Your task to perform on an android device: toggle sleep mode Image 0: 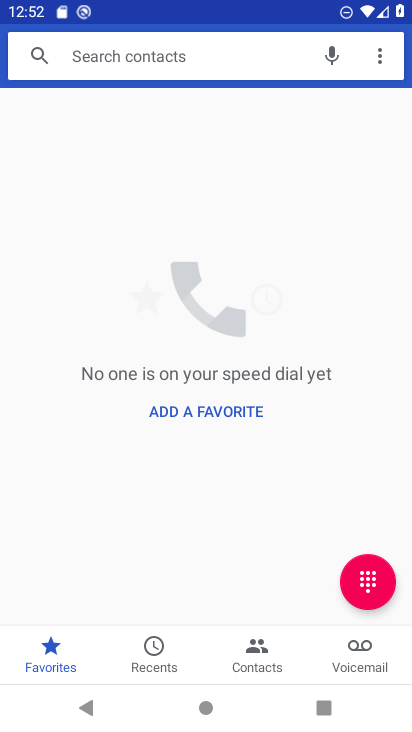
Step 0: press home button
Your task to perform on an android device: toggle sleep mode Image 1: 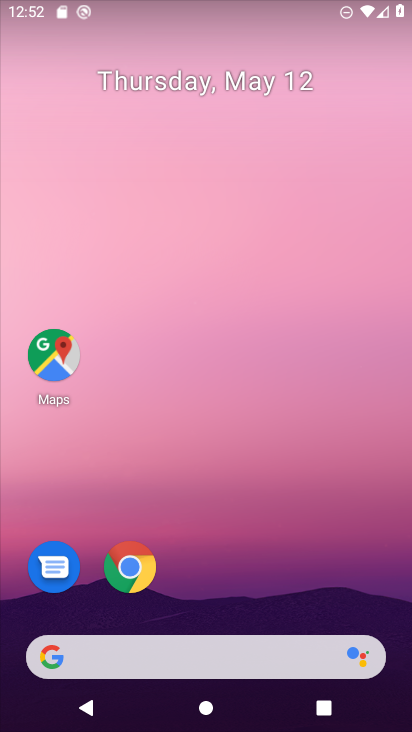
Step 1: drag from (246, 718) to (355, 7)
Your task to perform on an android device: toggle sleep mode Image 2: 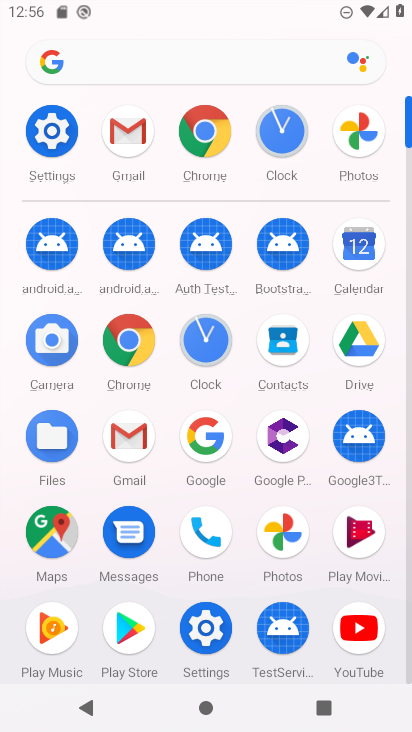
Step 2: click (57, 145)
Your task to perform on an android device: toggle sleep mode Image 3: 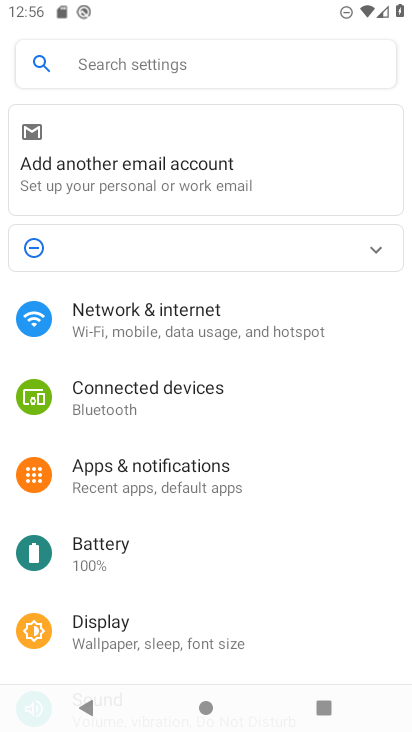
Step 3: click (255, 647)
Your task to perform on an android device: toggle sleep mode Image 4: 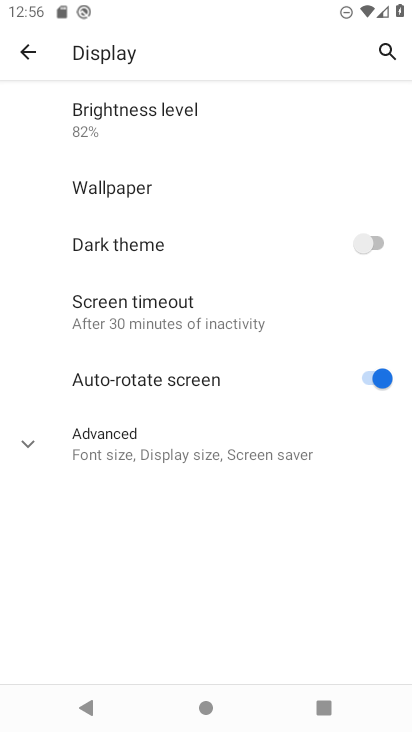
Step 4: task complete